Your task to perform on an android device: toggle data saver in the chrome app Image 0: 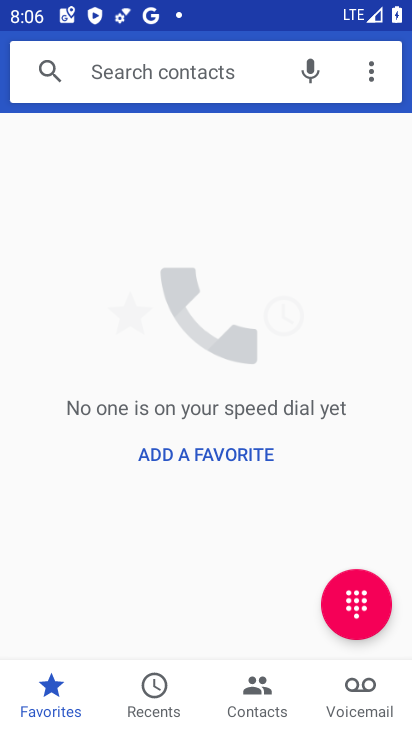
Step 0: press home button
Your task to perform on an android device: toggle data saver in the chrome app Image 1: 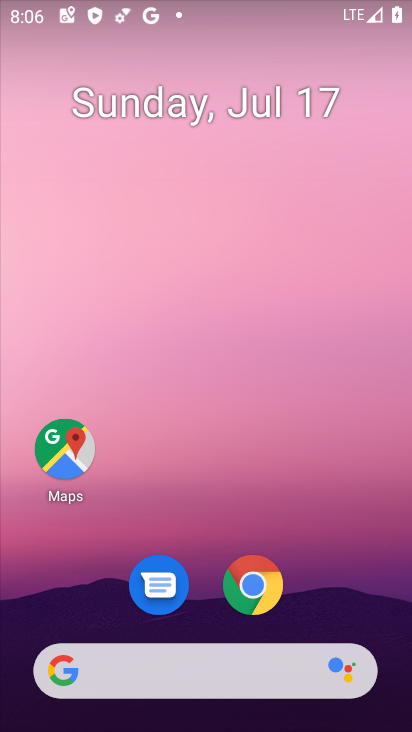
Step 1: click (254, 582)
Your task to perform on an android device: toggle data saver in the chrome app Image 2: 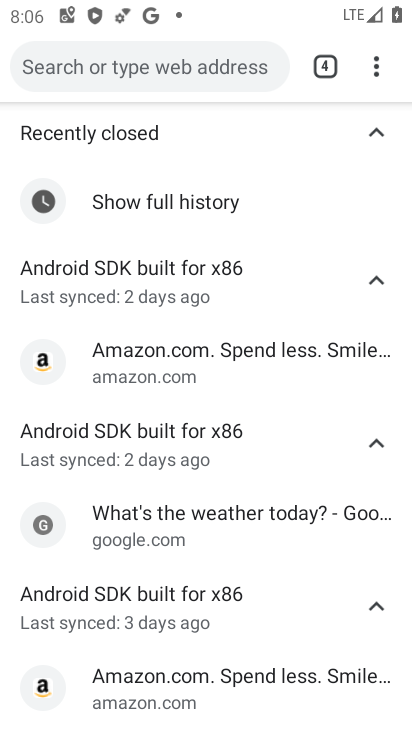
Step 2: click (373, 66)
Your task to perform on an android device: toggle data saver in the chrome app Image 3: 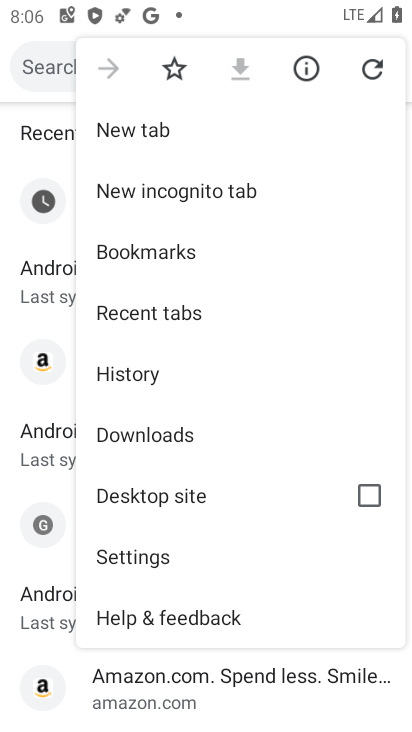
Step 3: click (155, 551)
Your task to perform on an android device: toggle data saver in the chrome app Image 4: 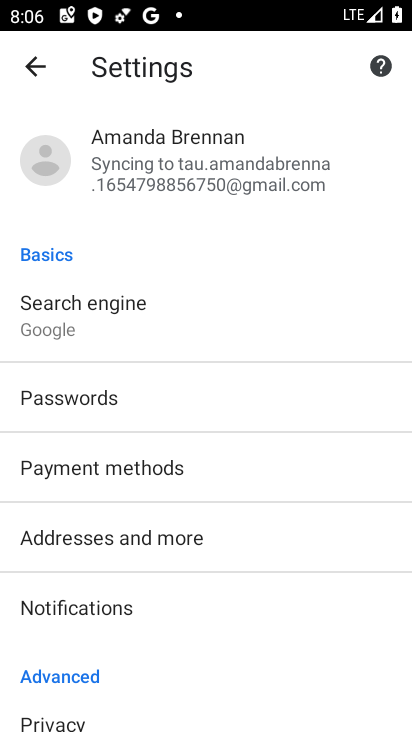
Step 4: drag from (163, 631) to (221, 187)
Your task to perform on an android device: toggle data saver in the chrome app Image 5: 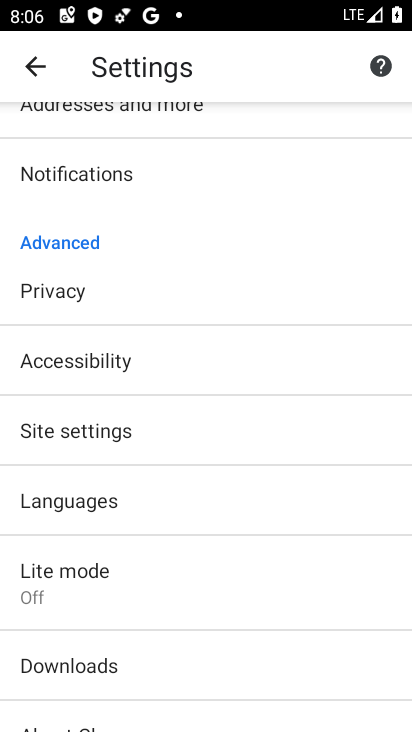
Step 5: click (157, 591)
Your task to perform on an android device: toggle data saver in the chrome app Image 6: 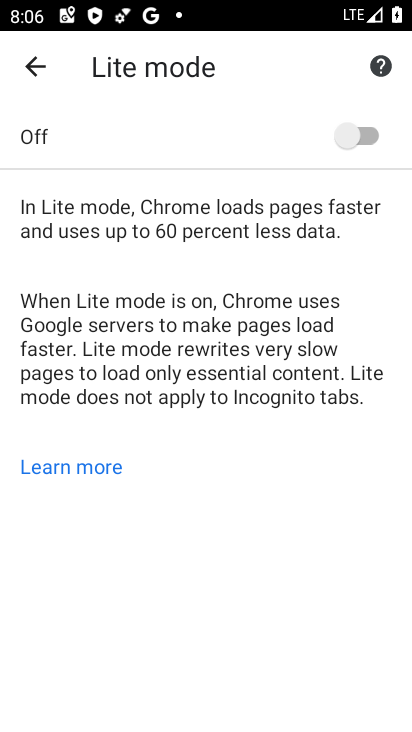
Step 6: click (357, 129)
Your task to perform on an android device: toggle data saver in the chrome app Image 7: 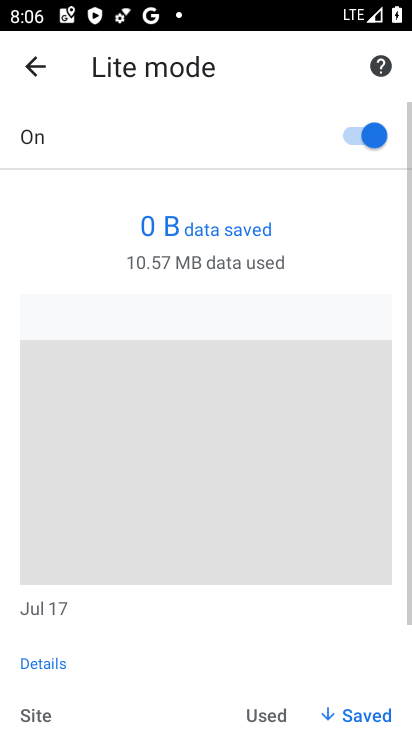
Step 7: task complete